Your task to perform on an android device: turn on improve location accuracy Image 0: 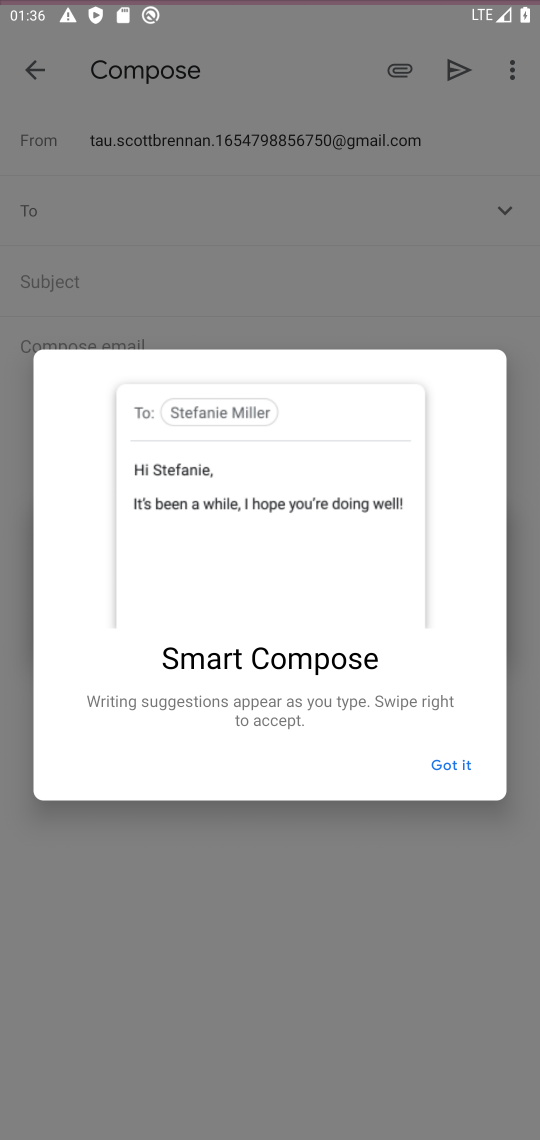
Step 0: press home button
Your task to perform on an android device: turn on improve location accuracy Image 1: 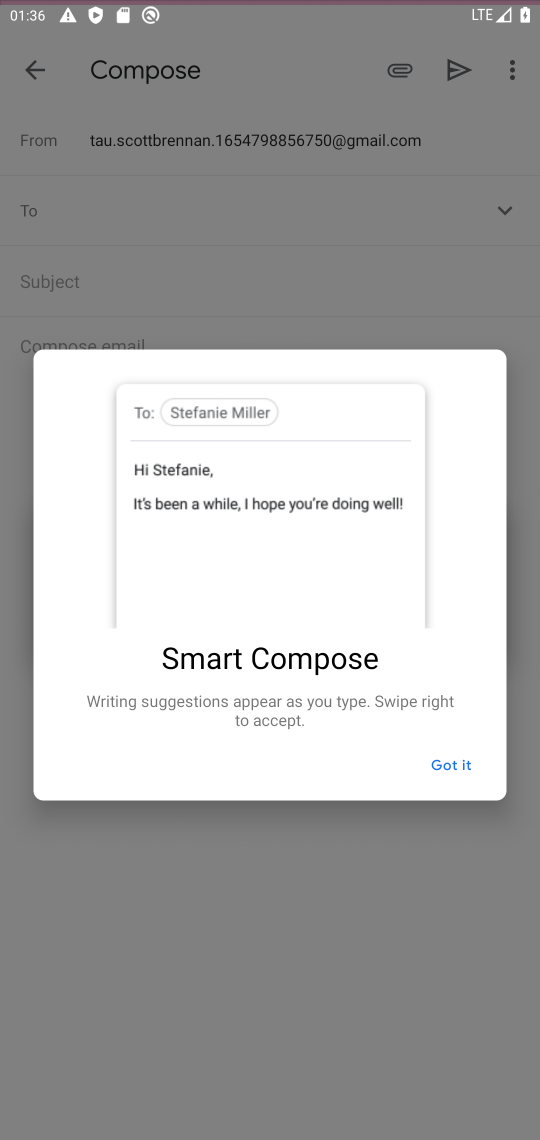
Step 1: click (242, 57)
Your task to perform on an android device: turn on improve location accuracy Image 2: 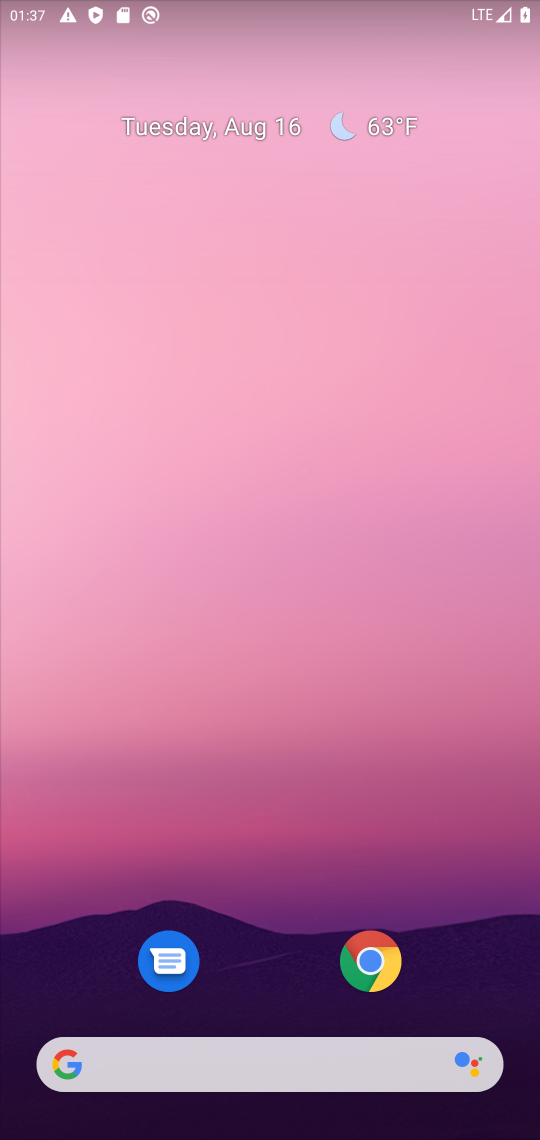
Step 2: drag from (365, 1022) to (270, 115)
Your task to perform on an android device: turn on improve location accuracy Image 3: 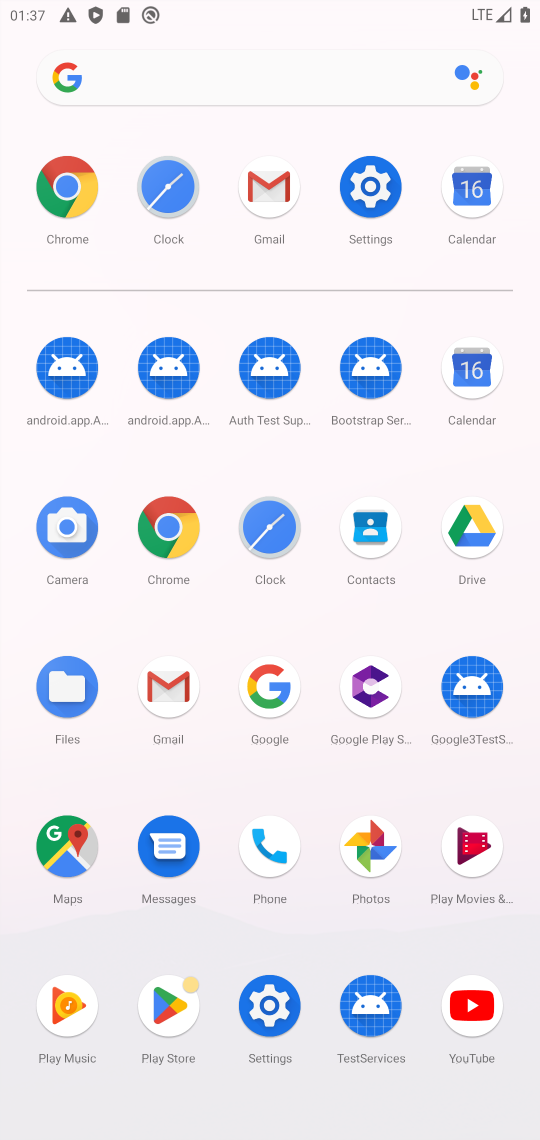
Step 3: click (236, 1042)
Your task to perform on an android device: turn on improve location accuracy Image 4: 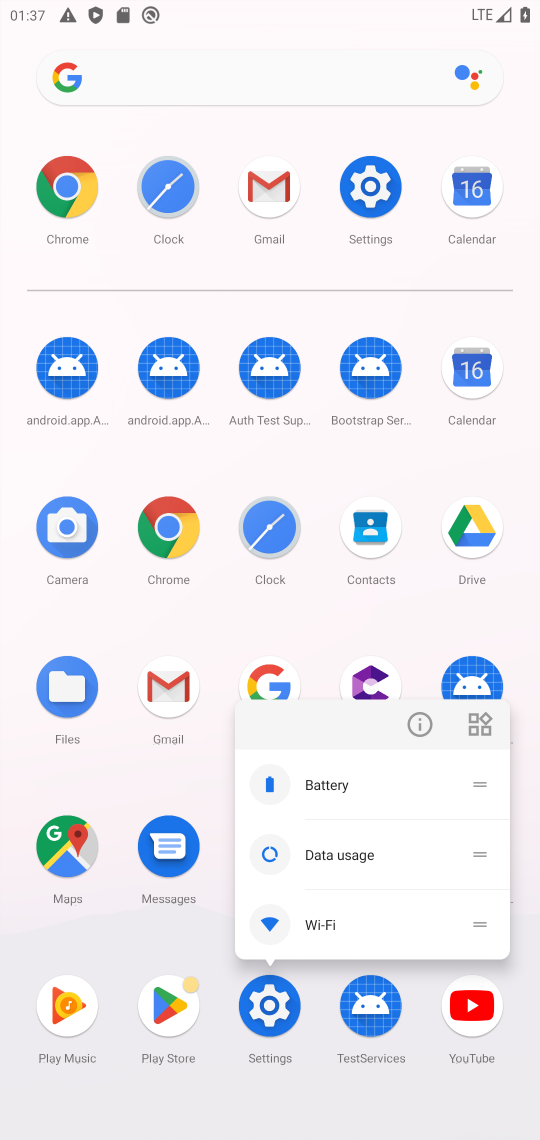
Step 4: click (261, 1033)
Your task to perform on an android device: turn on improve location accuracy Image 5: 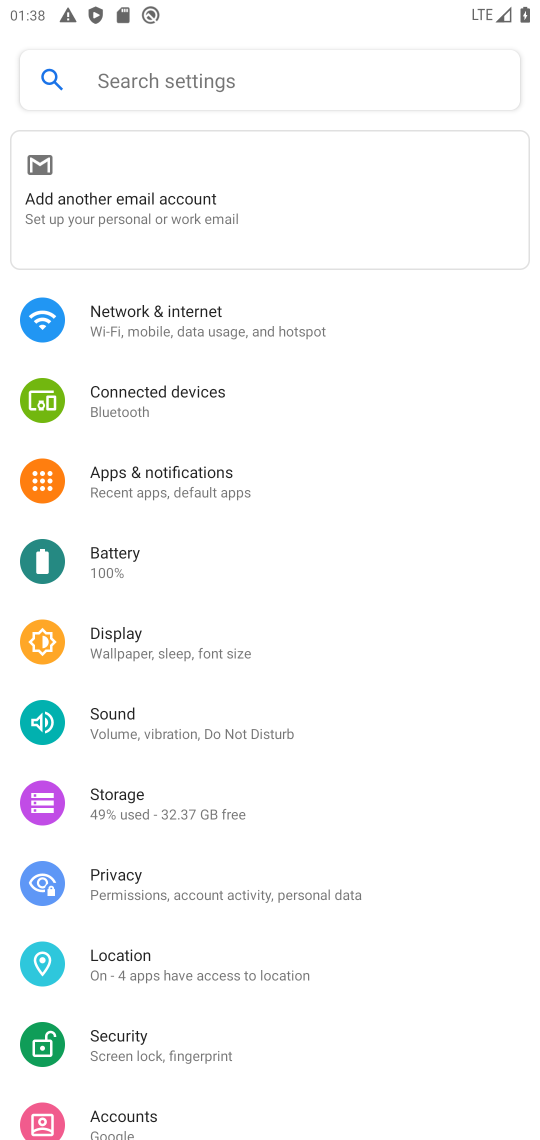
Step 5: click (186, 897)
Your task to perform on an android device: turn on improve location accuracy Image 6: 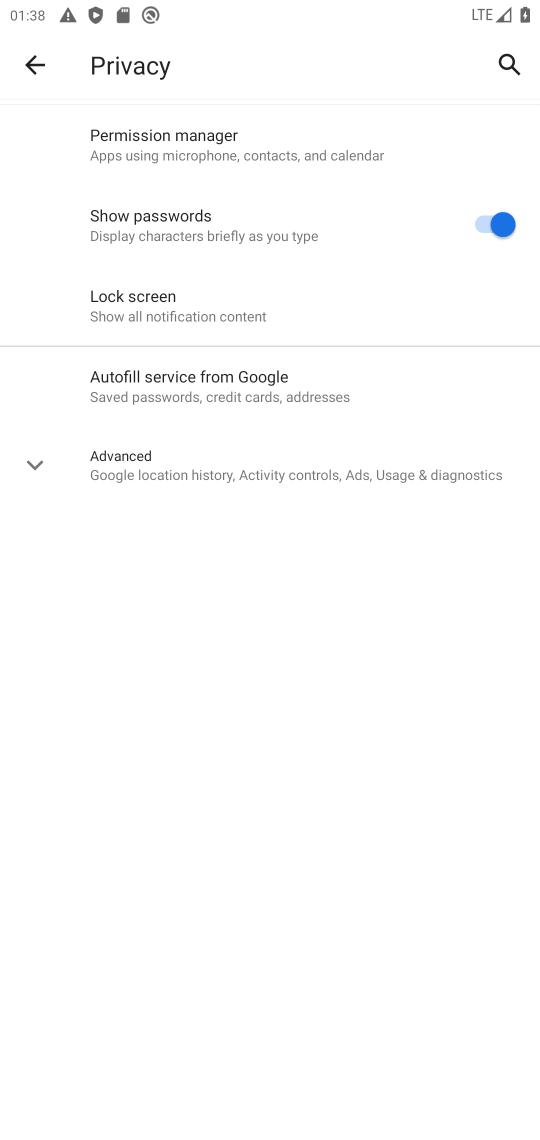
Step 6: press back button
Your task to perform on an android device: turn on improve location accuracy Image 7: 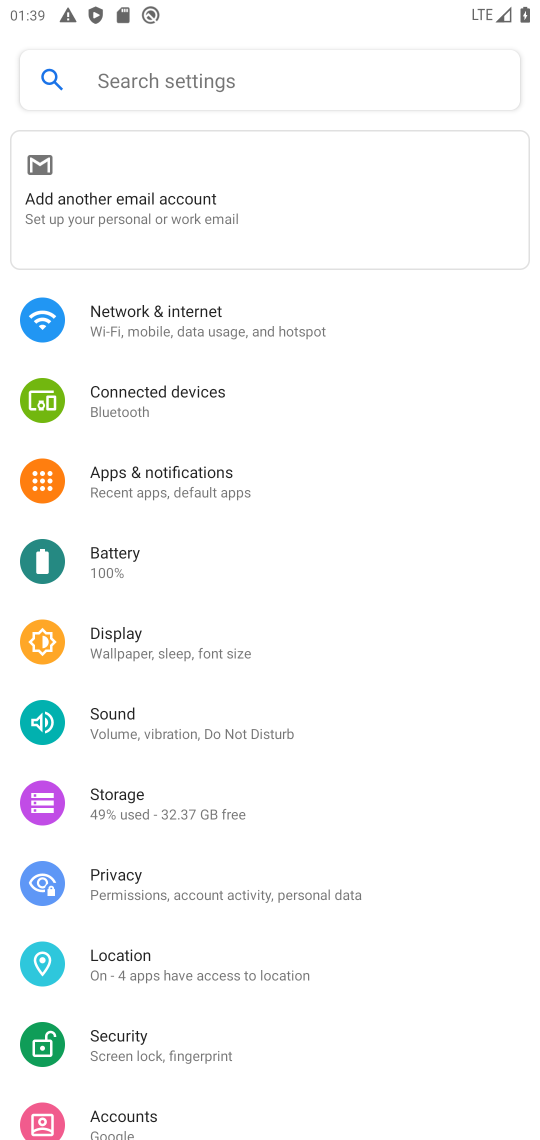
Step 7: click (101, 965)
Your task to perform on an android device: turn on improve location accuracy Image 8: 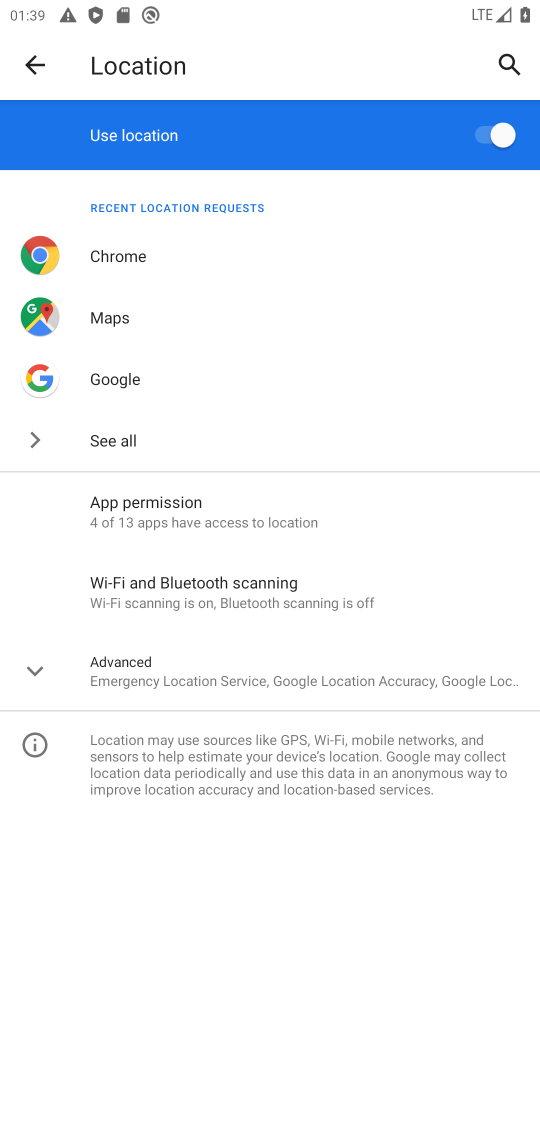
Step 8: click (135, 674)
Your task to perform on an android device: turn on improve location accuracy Image 9: 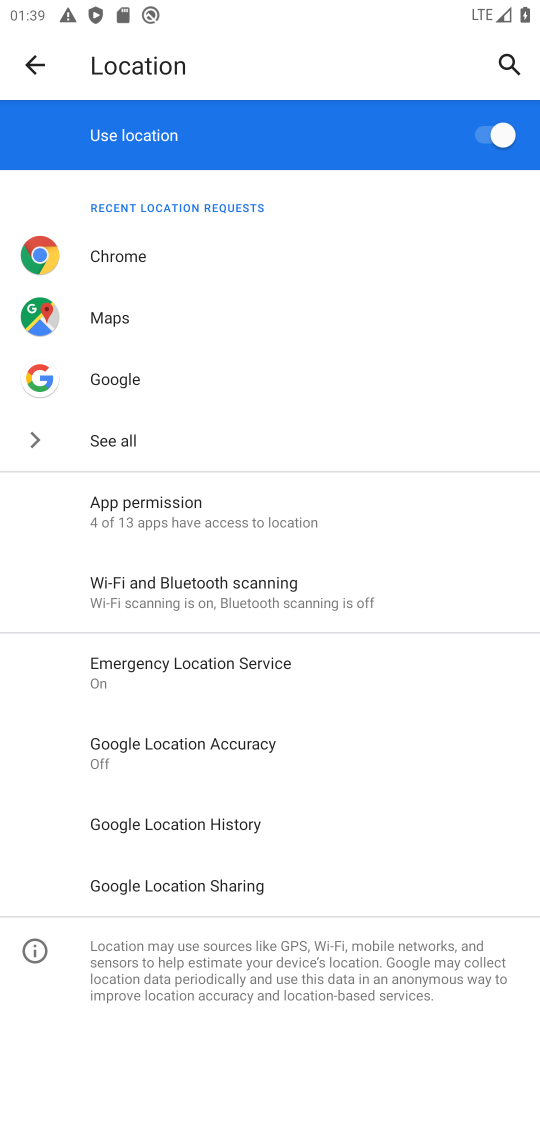
Step 9: click (136, 759)
Your task to perform on an android device: turn on improve location accuracy Image 10: 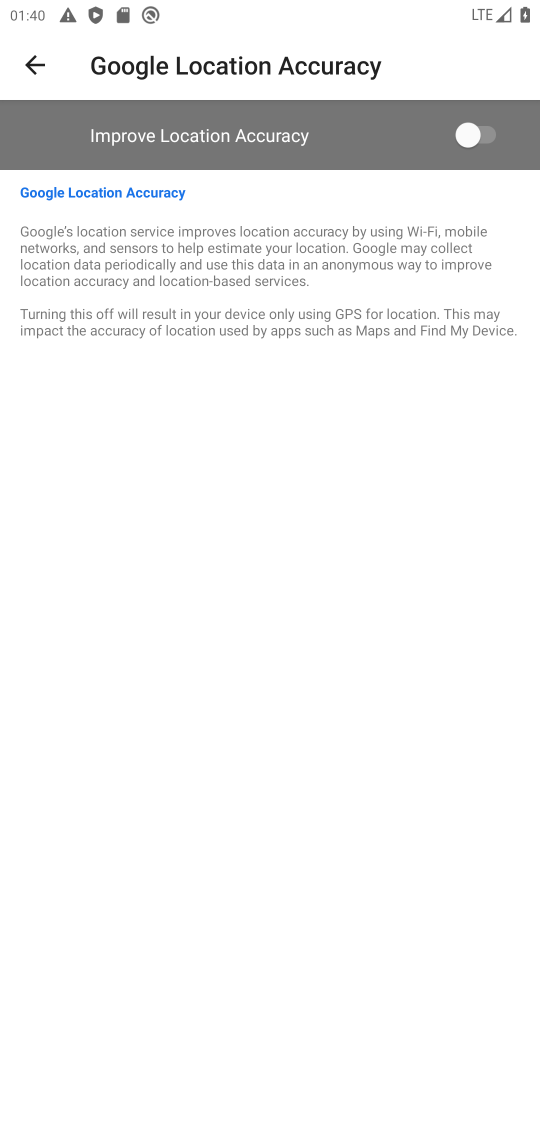
Step 10: click (352, 167)
Your task to perform on an android device: turn on improve location accuracy Image 11: 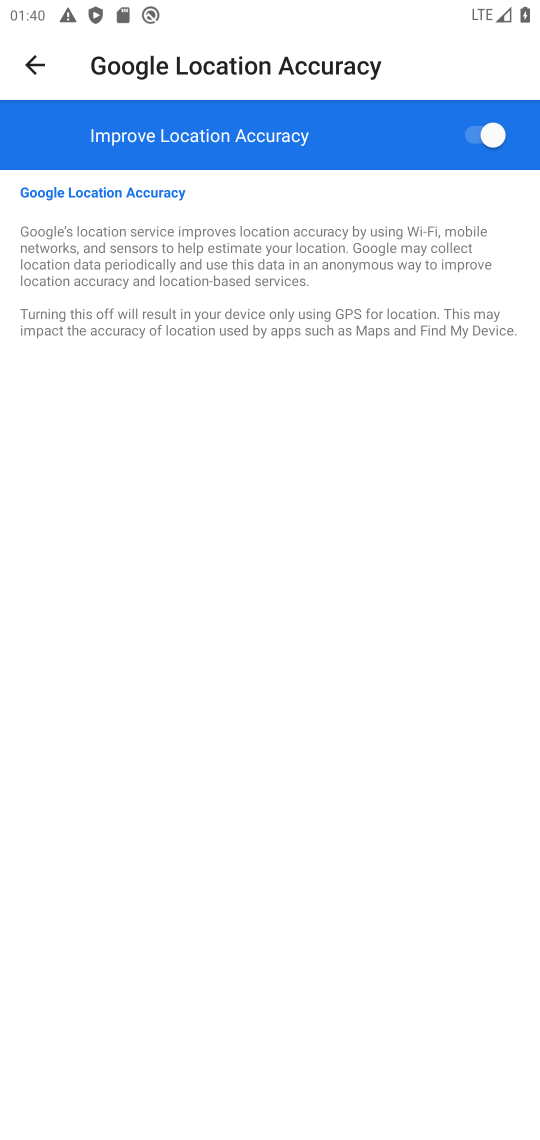
Step 11: task complete